Your task to perform on an android device: Search for seafood restaurants on Google Maps Image 0: 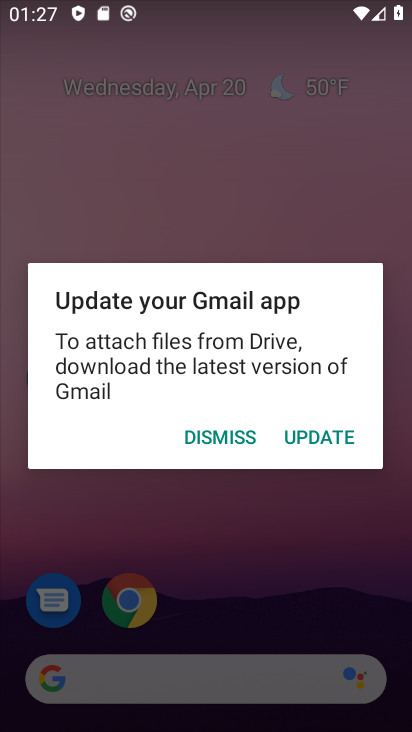
Step 0: press home button
Your task to perform on an android device: Search for seafood restaurants on Google Maps Image 1: 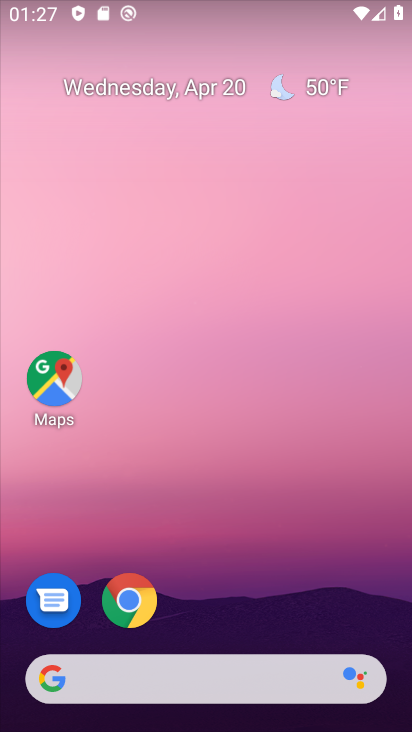
Step 1: click (53, 371)
Your task to perform on an android device: Search for seafood restaurants on Google Maps Image 2: 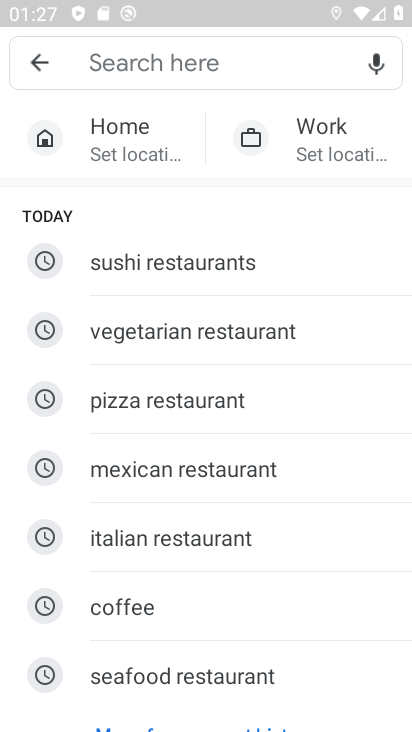
Step 2: click (156, 57)
Your task to perform on an android device: Search for seafood restaurants on Google Maps Image 3: 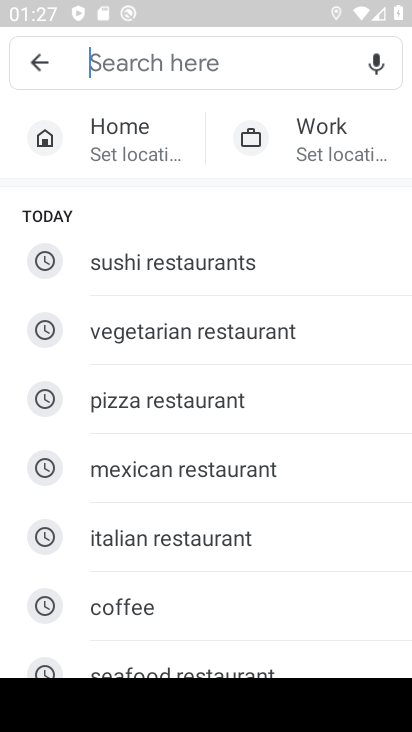
Step 3: type "seafood restaurants"
Your task to perform on an android device: Search for seafood restaurants on Google Maps Image 4: 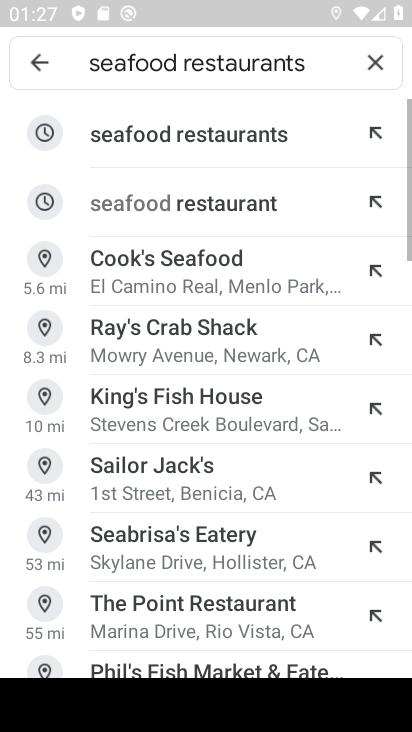
Step 4: task complete